Your task to perform on an android device: turn off wifi Image 0: 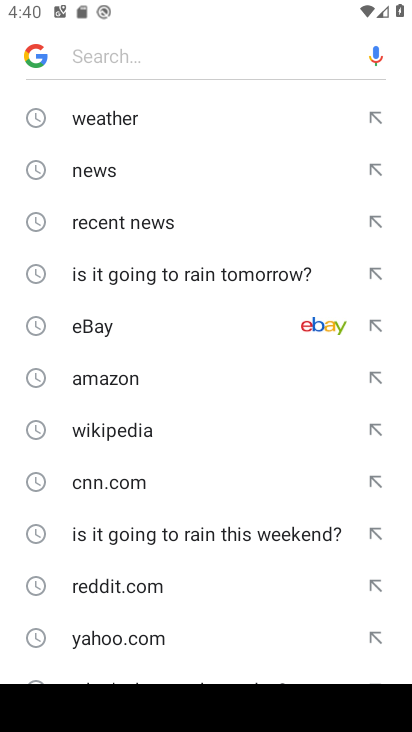
Step 0: press home button
Your task to perform on an android device: turn off wifi Image 1: 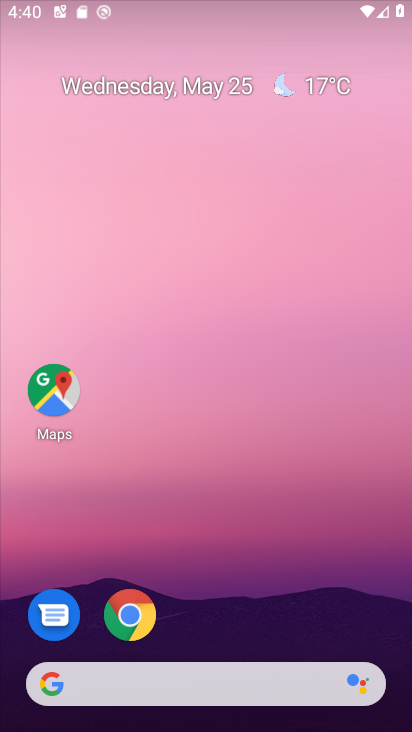
Step 1: drag from (281, 422) to (220, 11)
Your task to perform on an android device: turn off wifi Image 2: 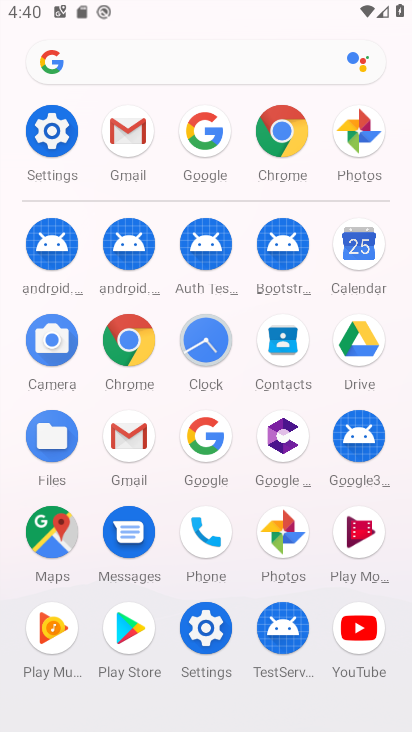
Step 2: click (49, 125)
Your task to perform on an android device: turn off wifi Image 3: 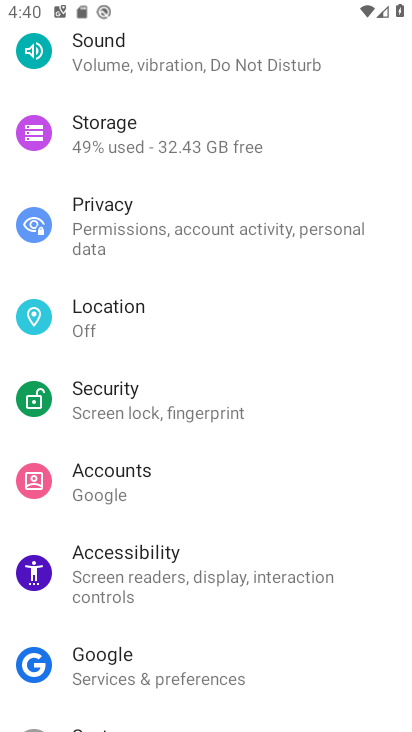
Step 3: drag from (241, 91) to (235, 718)
Your task to perform on an android device: turn off wifi Image 4: 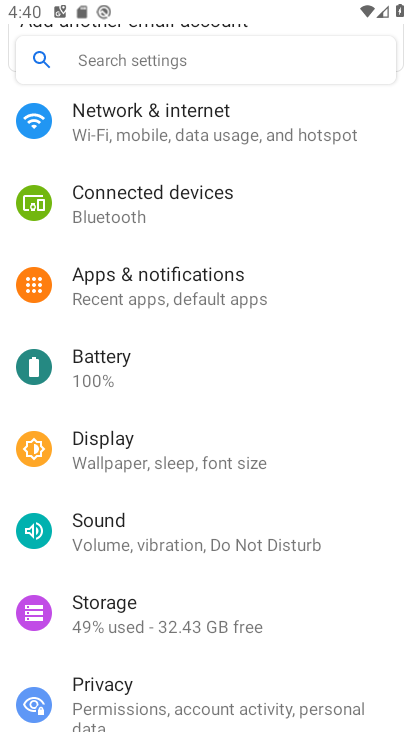
Step 4: click (202, 141)
Your task to perform on an android device: turn off wifi Image 5: 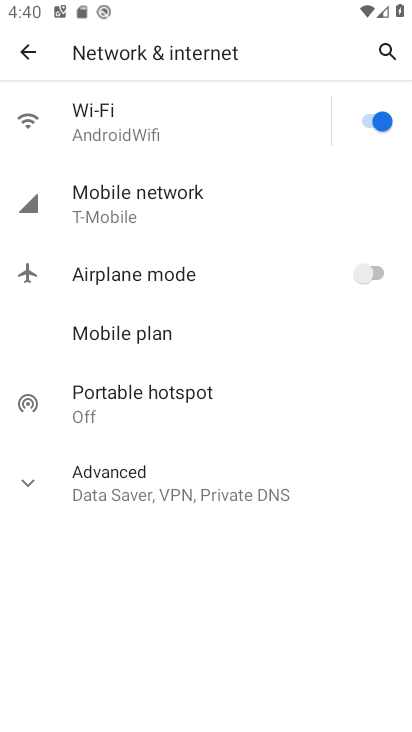
Step 5: click (378, 120)
Your task to perform on an android device: turn off wifi Image 6: 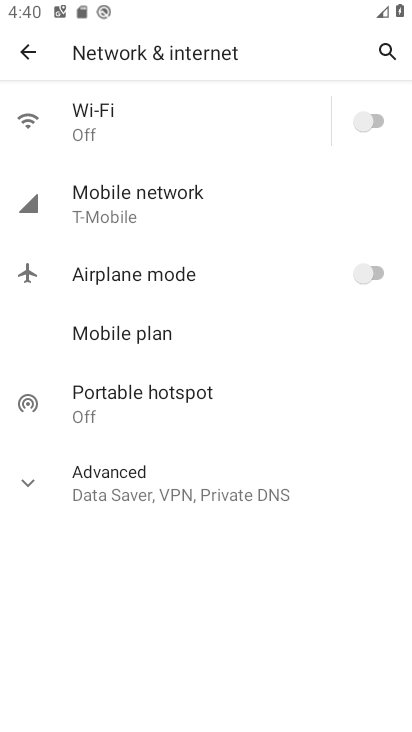
Step 6: task complete